Your task to perform on an android device: Open Google Chrome Image 0: 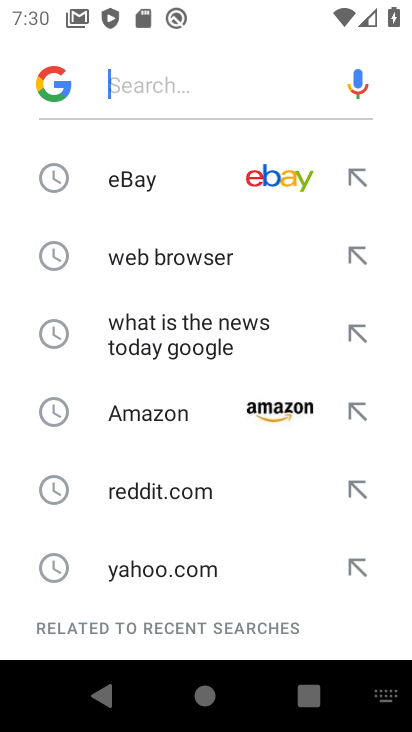
Step 0: task complete